Your task to perform on an android device: turn on sleep mode Image 0: 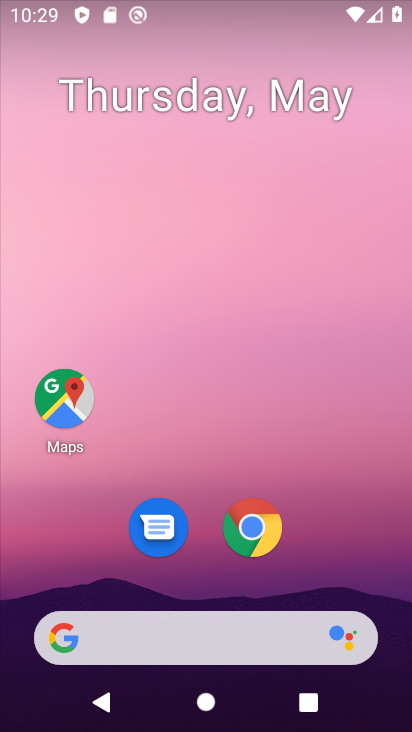
Step 0: drag from (317, 544) to (337, 143)
Your task to perform on an android device: turn on sleep mode Image 1: 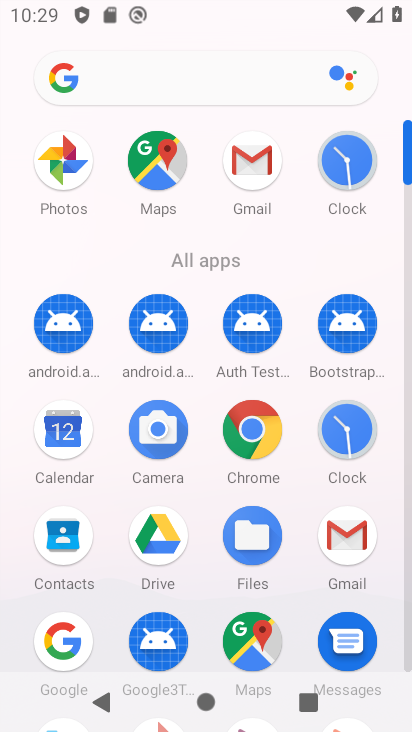
Step 1: drag from (234, 537) to (298, 22)
Your task to perform on an android device: turn on sleep mode Image 2: 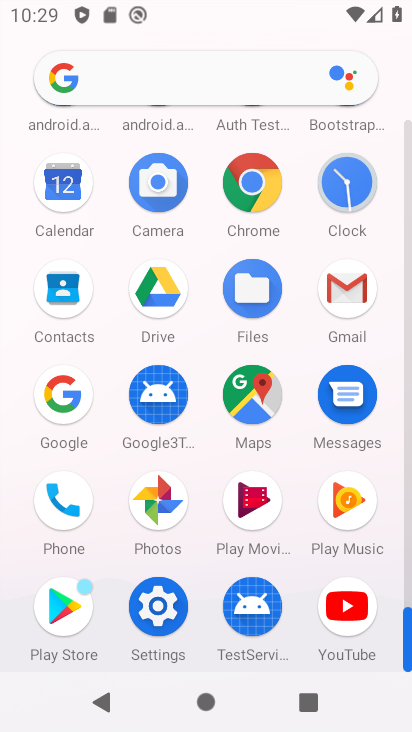
Step 2: click (157, 616)
Your task to perform on an android device: turn on sleep mode Image 3: 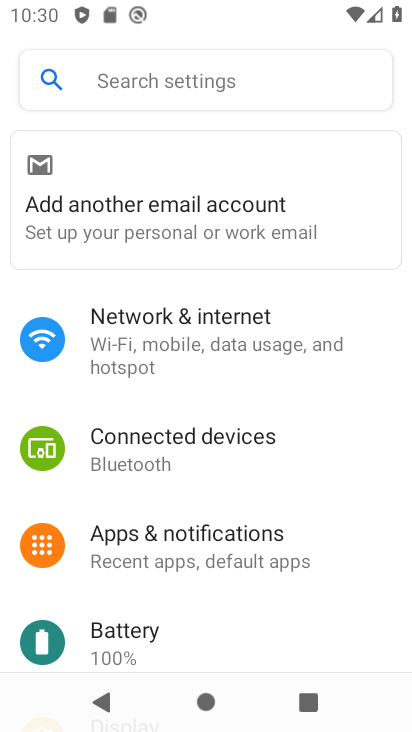
Step 3: drag from (154, 608) to (229, 309)
Your task to perform on an android device: turn on sleep mode Image 4: 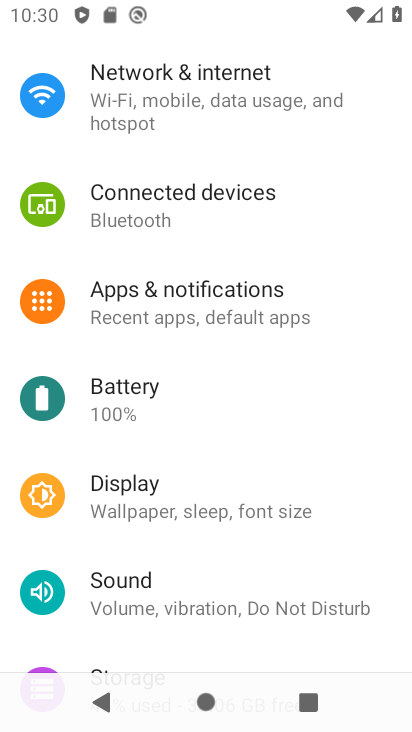
Step 4: click (140, 505)
Your task to perform on an android device: turn on sleep mode Image 5: 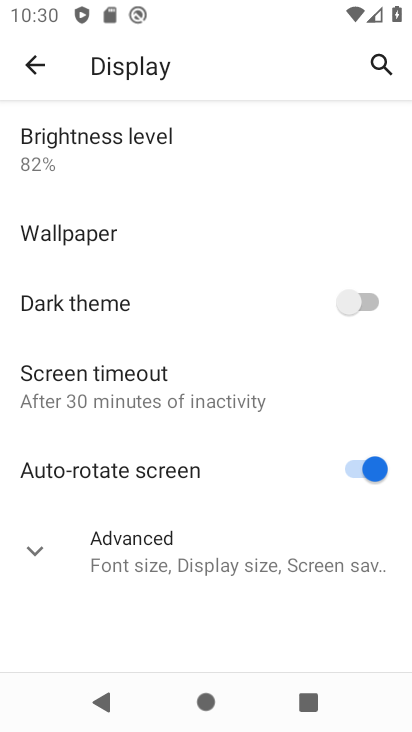
Step 5: click (188, 411)
Your task to perform on an android device: turn on sleep mode Image 6: 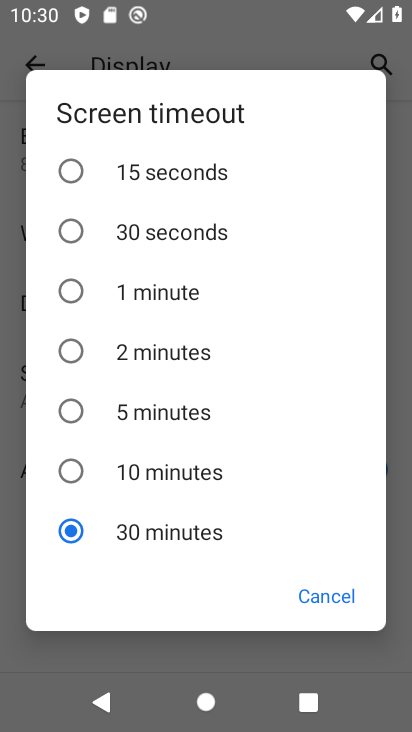
Step 6: task complete